Your task to perform on an android device: Open the calendar app, open the side menu, and click the "Day" option Image 0: 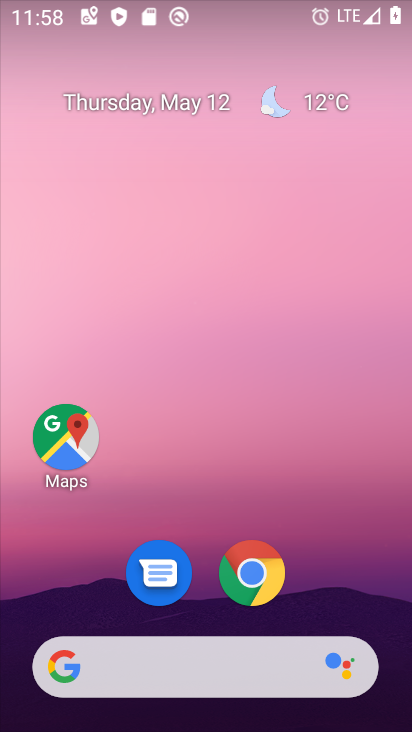
Step 0: drag from (195, 713) to (341, 53)
Your task to perform on an android device: Open the calendar app, open the side menu, and click the "Day" option Image 1: 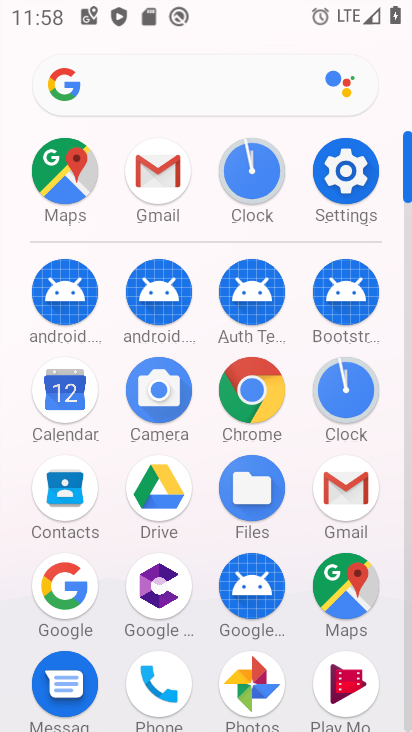
Step 1: click (78, 394)
Your task to perform on an android device: Open the calendar app, open the side menu, and click the "Day" option Image 2: 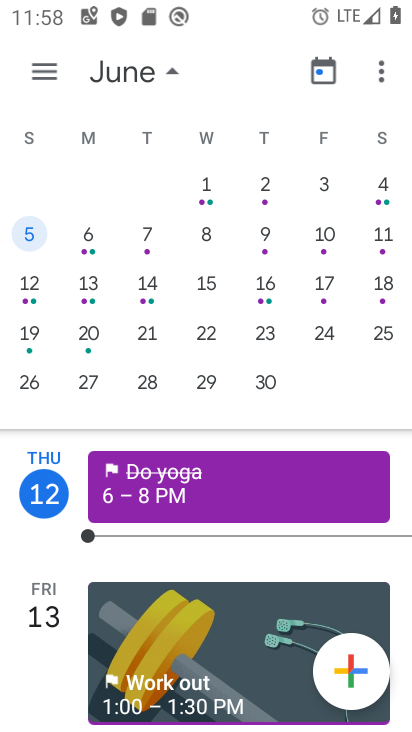
Step 2: click (22, 54)
Your task to perform on an android device: Open the calendar app, open the side menu, and click the "Day" option Image 3: 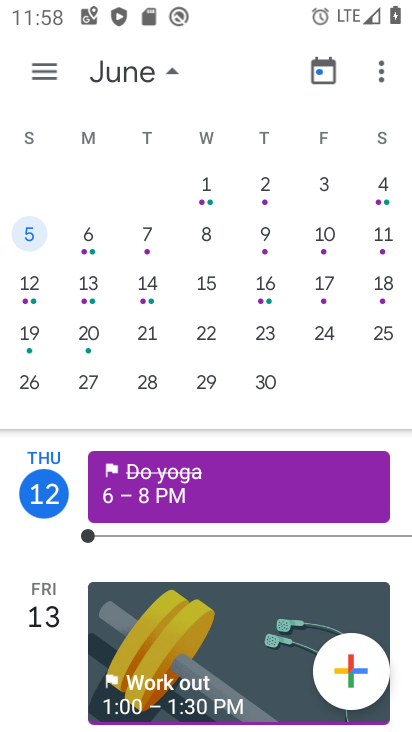
Step 3: click (29, 64)
Your task to perform on an android device: Open the calendar app, open the side menu, and click the "Day" option Image 4: 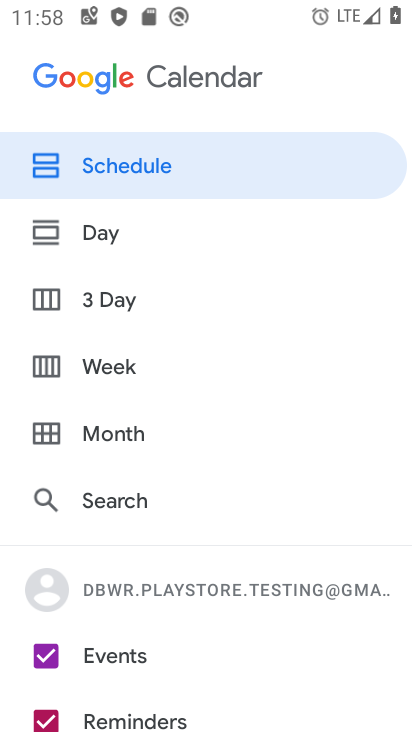
Step 4: click (124, 247)
Your task to perform on an android device: Open the calendar app, open the side menu, and click the "Day" option Image 5: 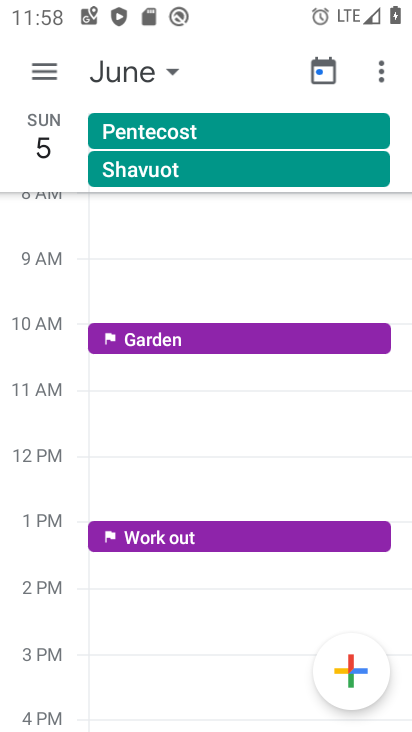
Step 5: drag from (276, 312) to (322, 81)
Your task to perform on an android device: Open the calendar app, open the side menu, and click the "Day" option Image 6: 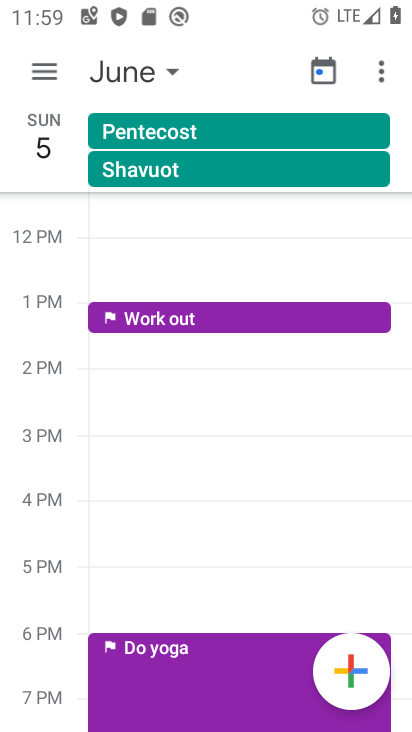
Step 6: click (99, 66)
Your task to perform on an android device: Open the calendar app, open the side menu, and click the "Day" option Image 7: 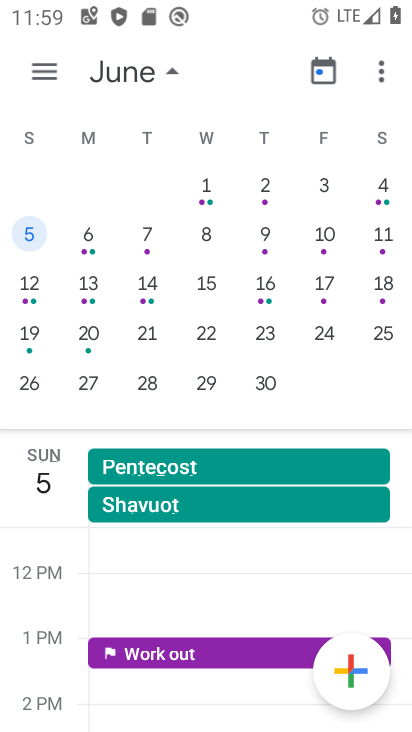
Step 7: task complete